Your task to perform on an android device: Add "razer nari" to the cart on newegg.com Image 0: 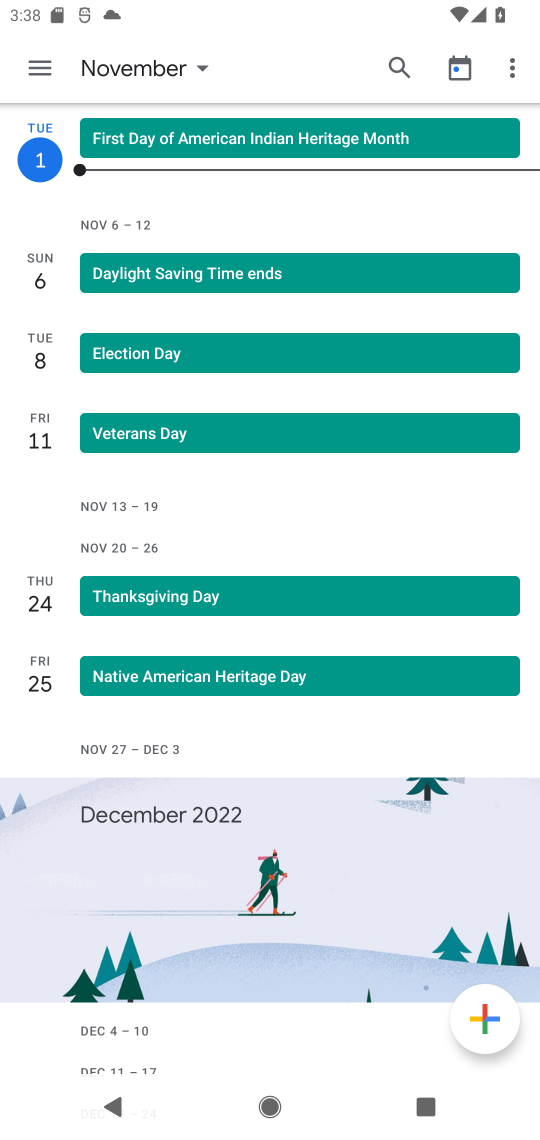
Step 0: press home button
Your task to perform on an android device: Add "razer nari" to the cart on newegg.com Image 1: 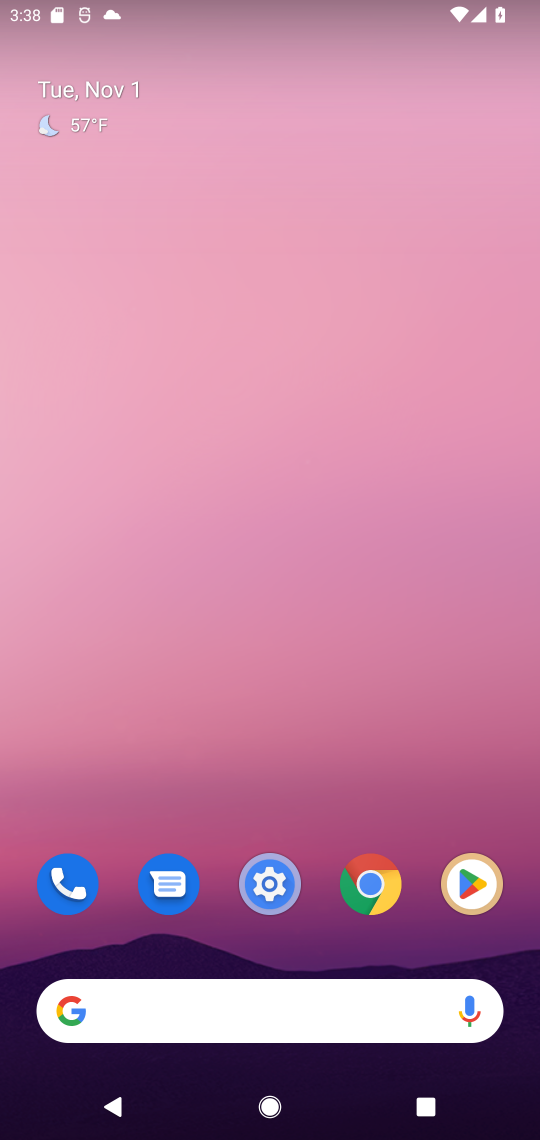
Step 1: click (102, 1003)
Your task to perform on an android device: Add "razer nari" to the cart on newegg.com Image 2: 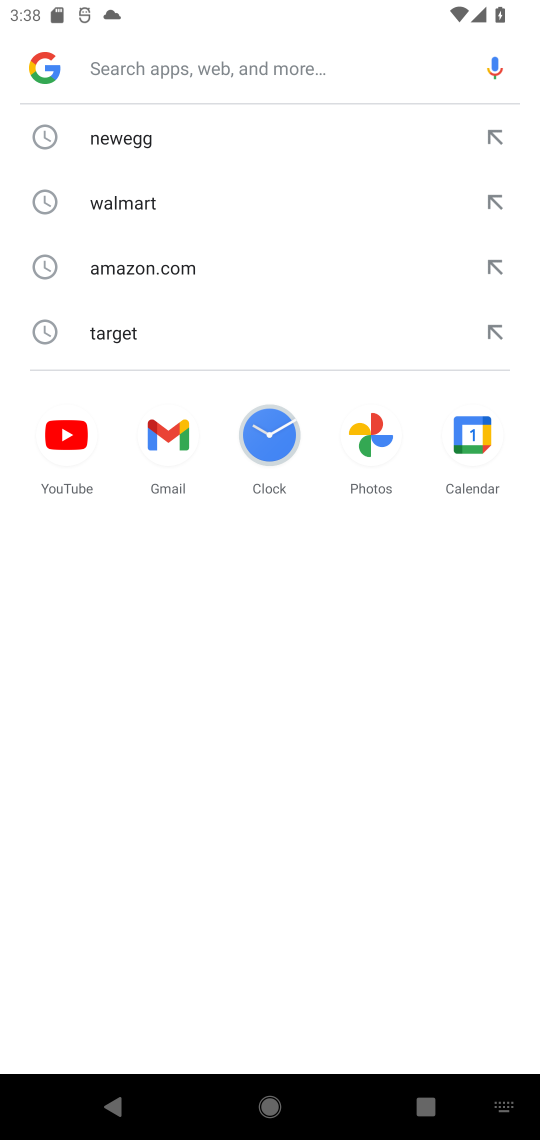
Step 2: press enter
Your task to perform on an android device: Add "razer nari" to the cart on newegg.com Image 3: 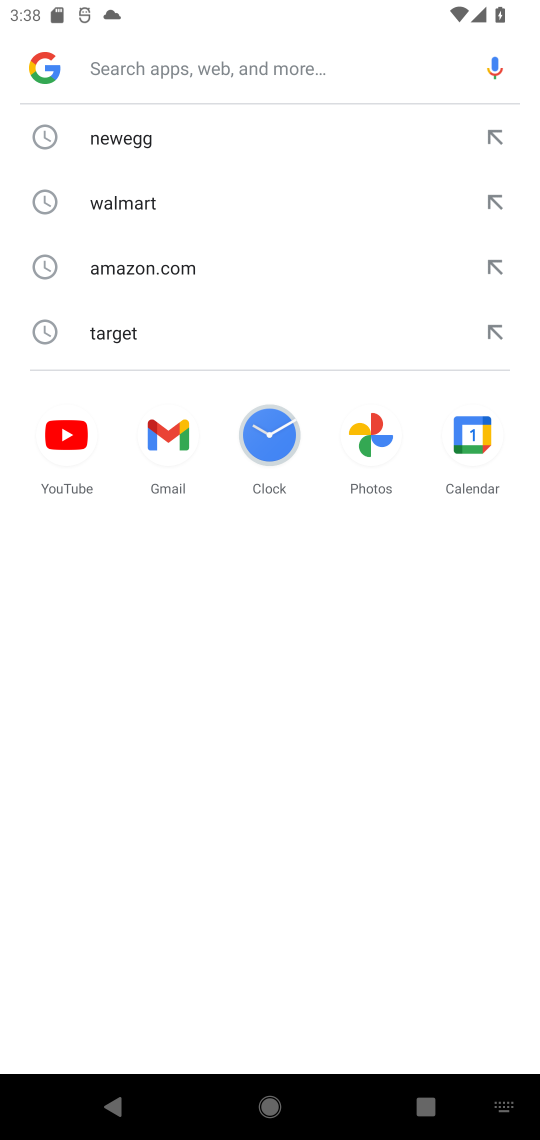
Step 3: type "newegg.com"
Your task to perform on an android device: Add "razer nari" to the cart on newegg.com Image 4: 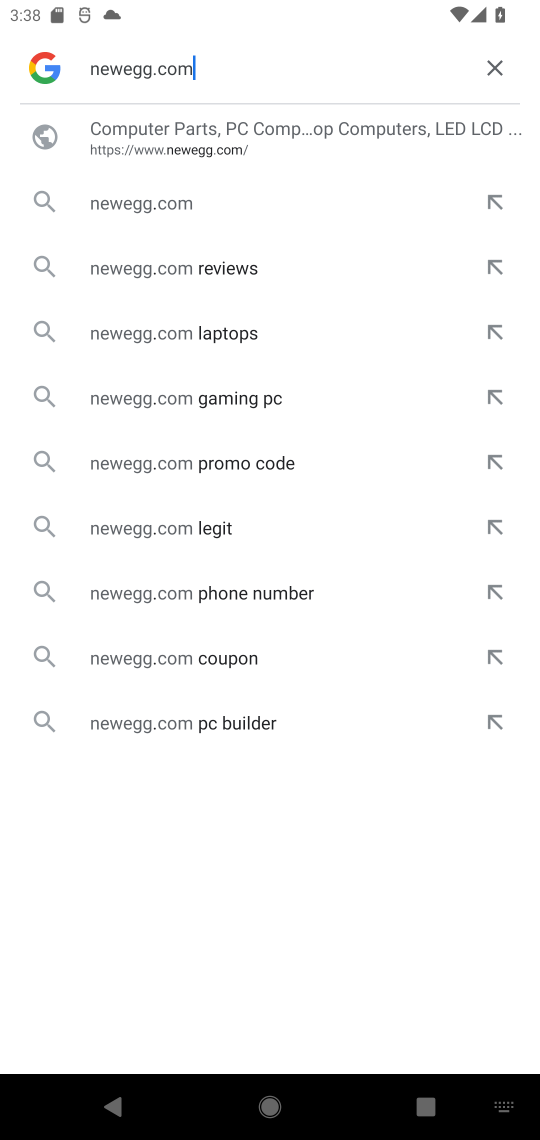
Step 4: press enter
Your task to perform on an android device: Add "razer nari" to the cart on newegg.com Image 5: 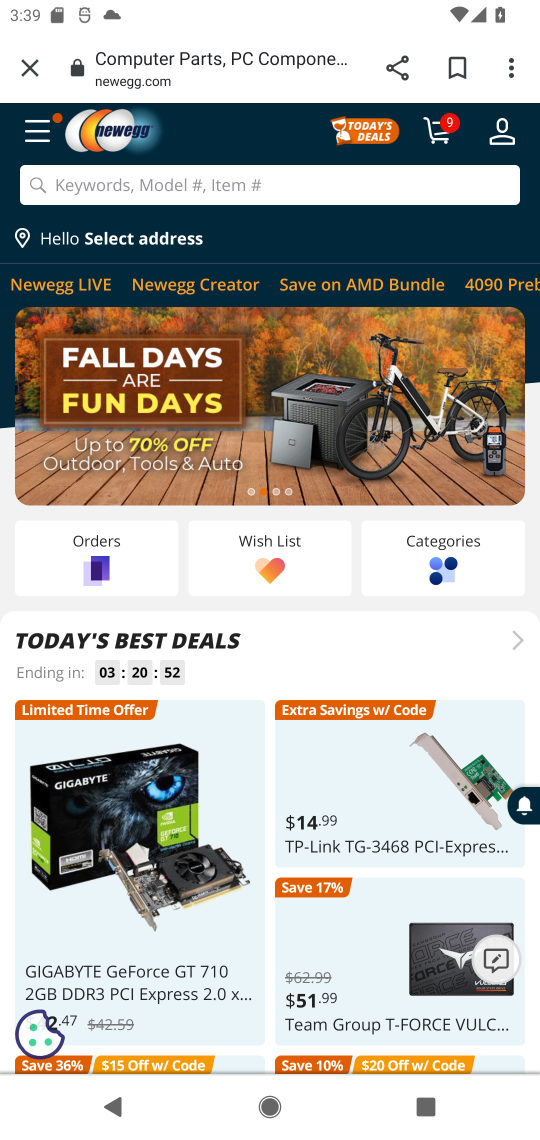
Step 5: click (266, 188)
Your task to perform on an android device: Add "razer nari" to the cart on newegg.com Image 6: 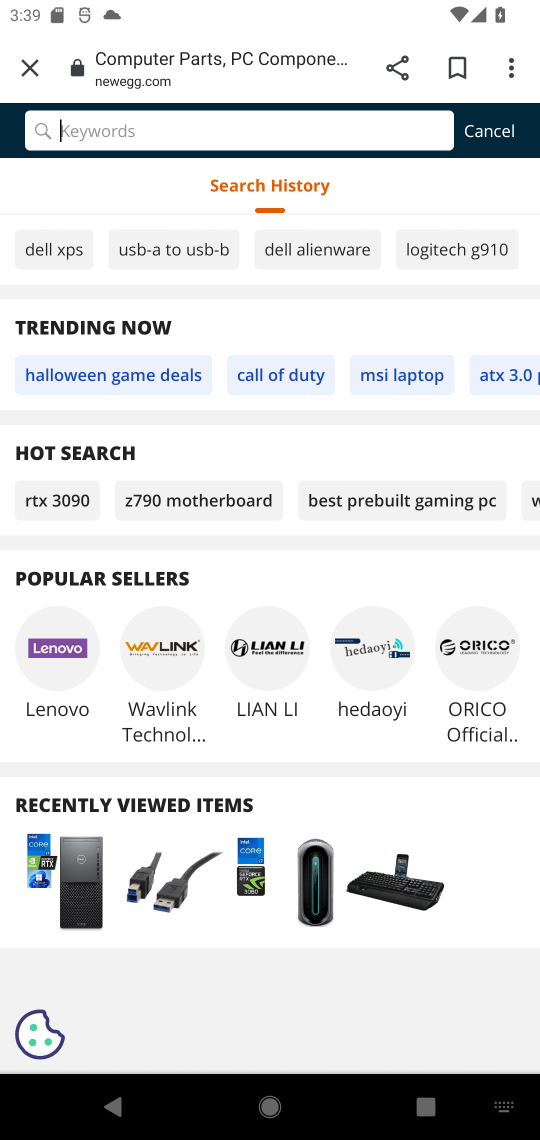
Step 6: type "razer nari"
Your task to perform on an android device: Add "razer nari" to the cart on newegg.com Image 7: 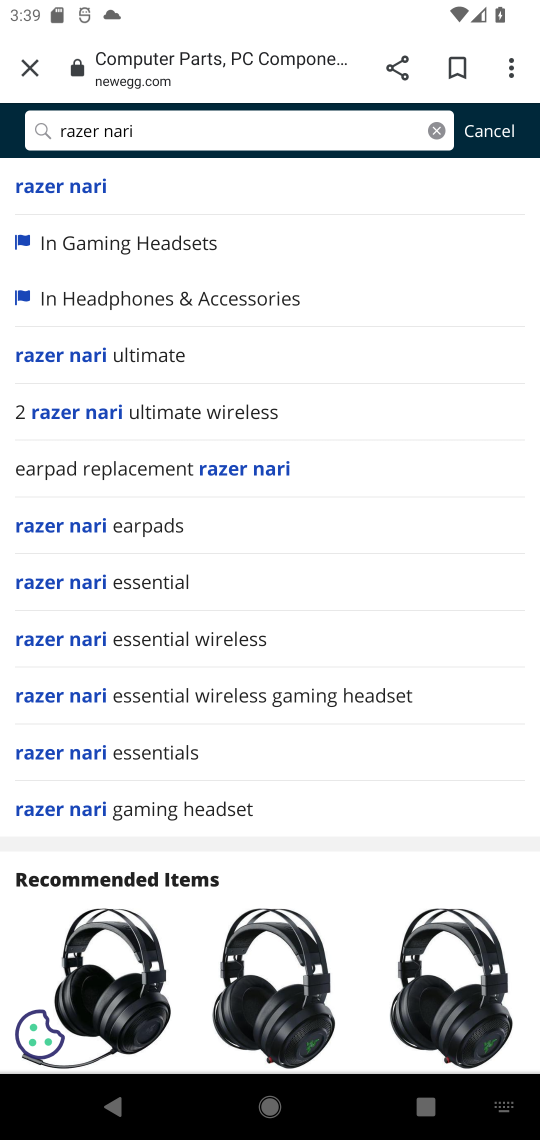
Step 7: click (70, 185)
Your task to perform on an android device: Add "razer nari" to the cart on newegg.com Image 8: 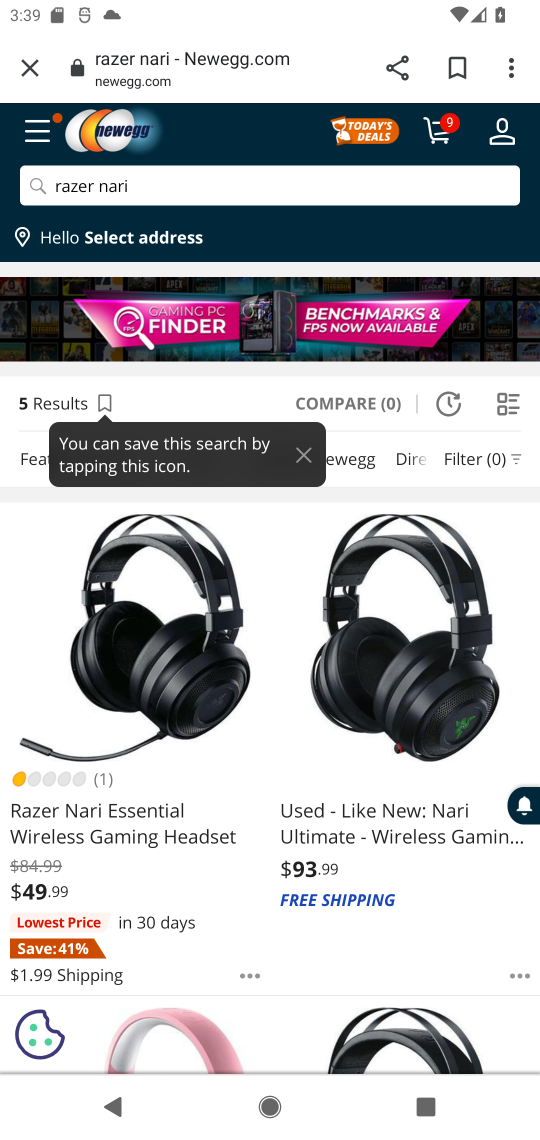
Step 8: click (137, 817)
Your task to perform on an android device: Add "razer nari" to the cart on newegg.com Image 9: 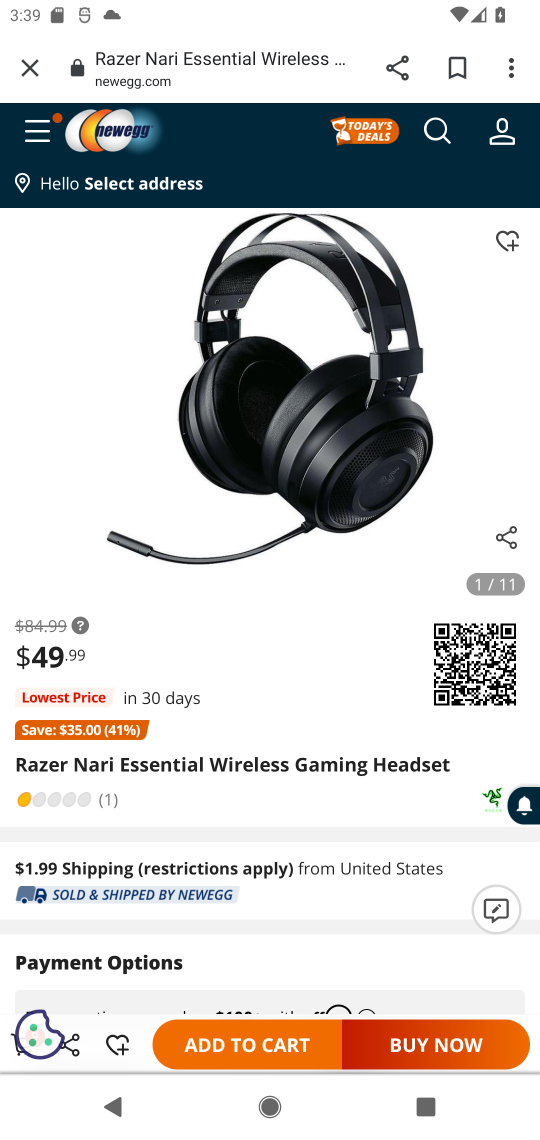
Step 9: click (229, 1049)
Your task to perform on an android device: Add "razer nari" to the cart on newegg.com Image 10: 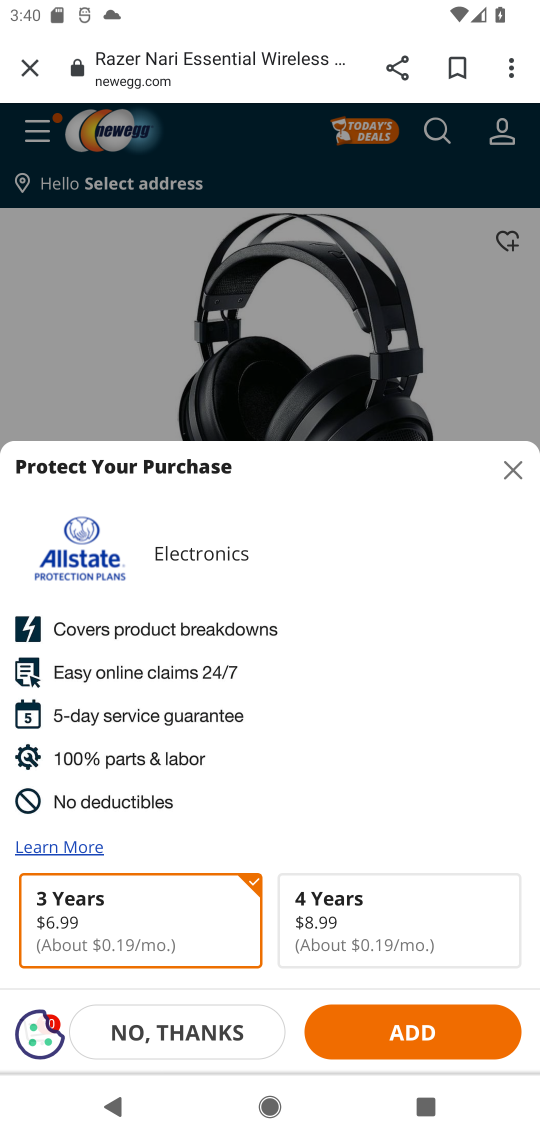
Step 10: click (411, 1044)
Your task to perform on an android device: Add "razer nari" to the cart on newegg.com Image 11: 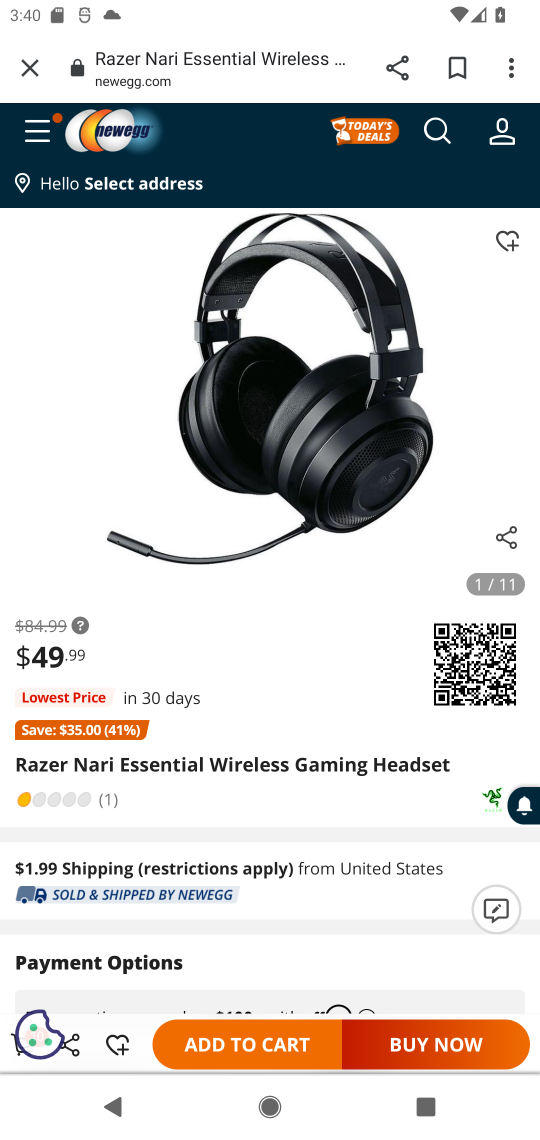
Step 11: task complete